Your task to perform on an android device: set default search engine in the chrome app Image 0: 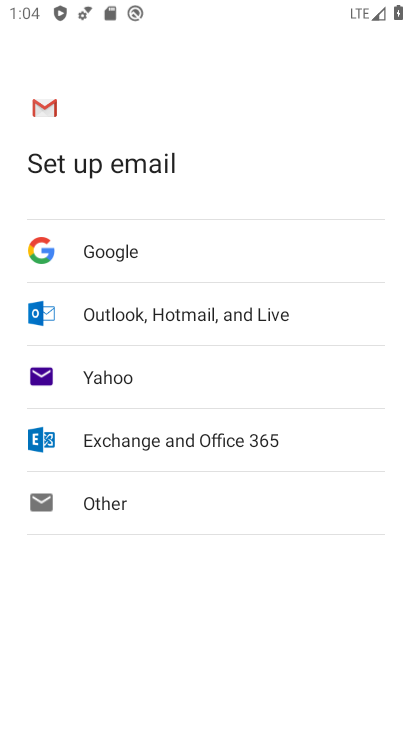
Step 0: press home button
Your task to perform on an android device: set default search engine in the chrome app Image 1: 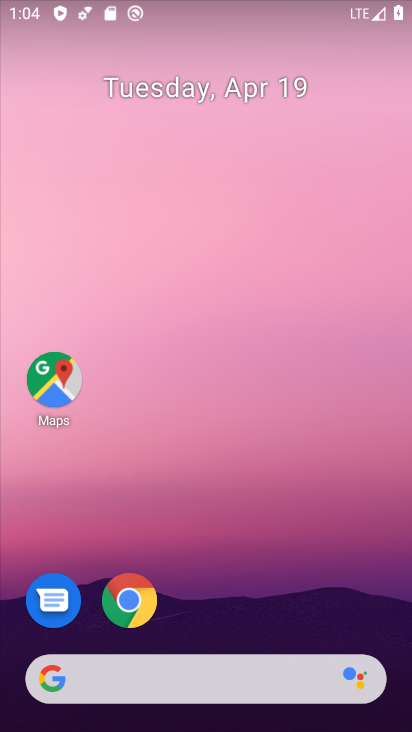
Step 1: drag from (207, 650) to (111, 94)
Your task to perform on an android device: set default search engine in the chrome app Image 2: 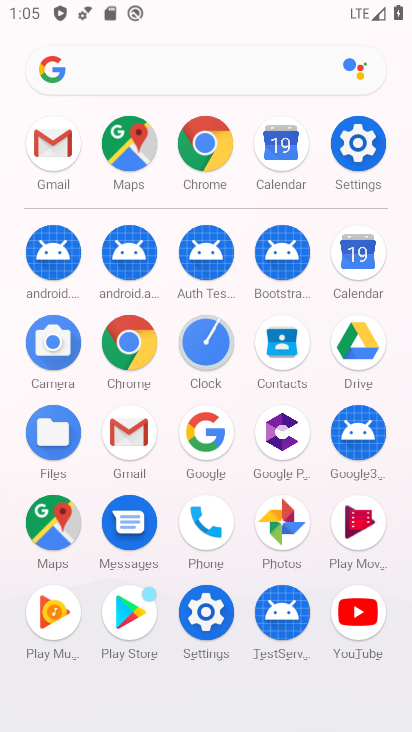
Step 2: click (205, 157)
Your task to perform on an android device: set default search engine in the chrome app Image 3: 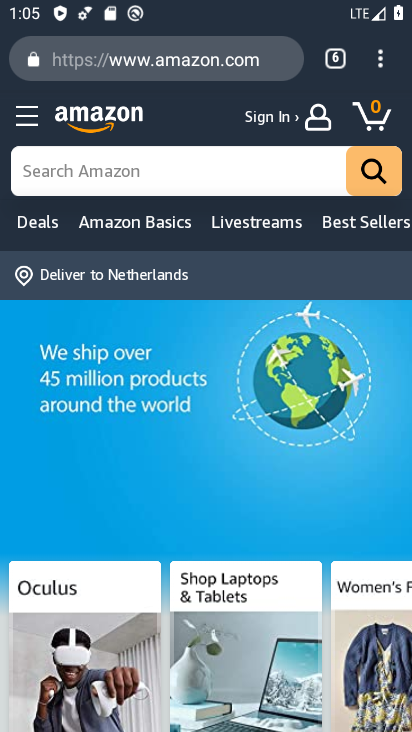
Step 3: click (376, 60)
Your task to perform on an android device: set default search engine in the chrome app Image 4: 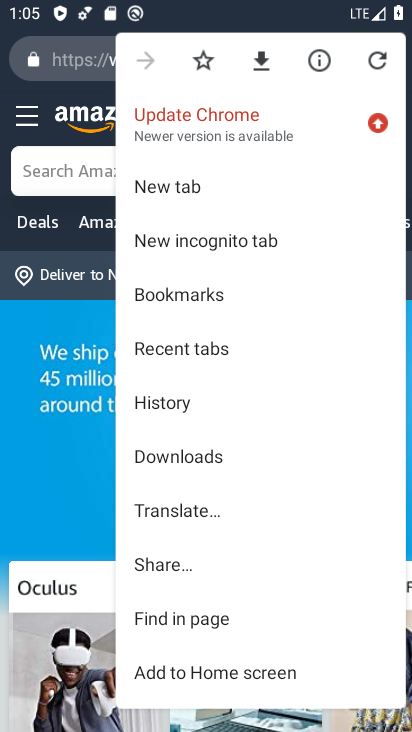
Step 4: drag from (187, 561) to (187, 230)
Your task to perform on an android device: set default search engine in the chrome app Image 5: 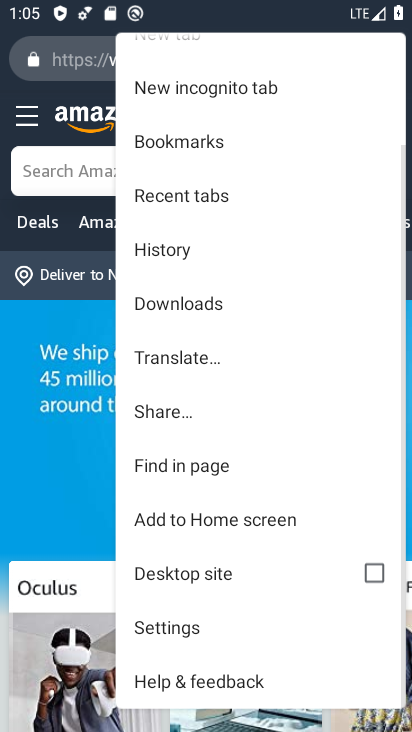
Step 5: click (165, 619)
Your task to perform on an android device: set default search engine in the chrome app Image 6: 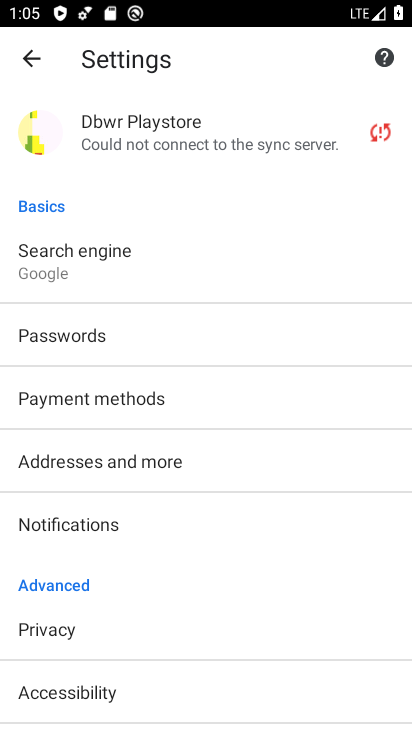
Step 6: click (77, 270)
Your task to perform on an android device: set default search engine in the chrome app Image 7: 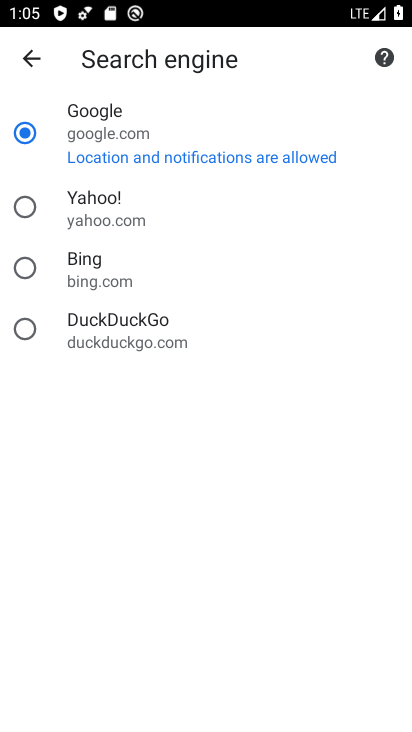
Step 7: click (38, 134)
Your task to perform on an android device: set default search engine in the chrome app Image 8: 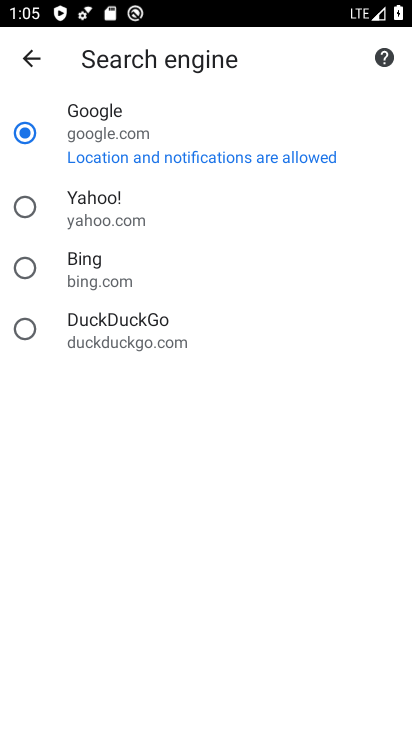
Step 8: task complete